Your task to perform on an android device: Open settings Image 0: 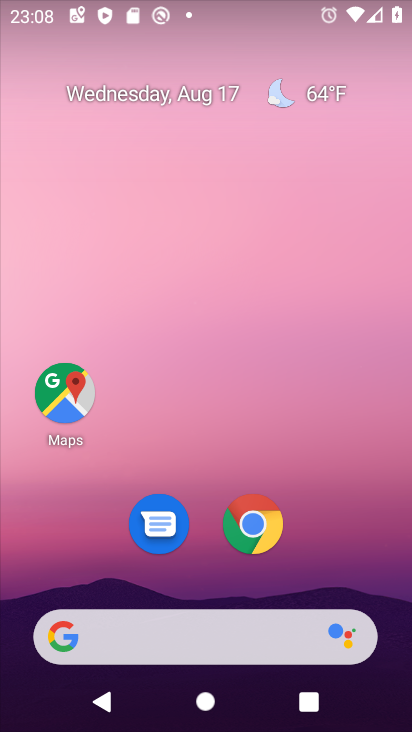
Step 0: drag from (237, 433) to (243, 0)
Your task to perform on an android device: Open settings Image 1: 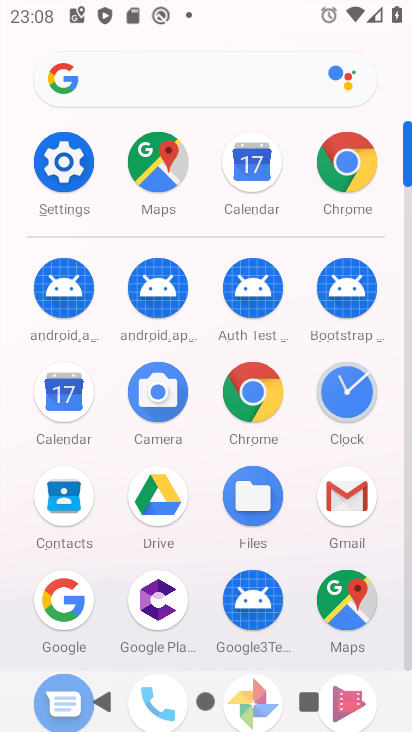
Step 1: click (65, 157)
Your task to perform on an android device: Open settings Image 2: 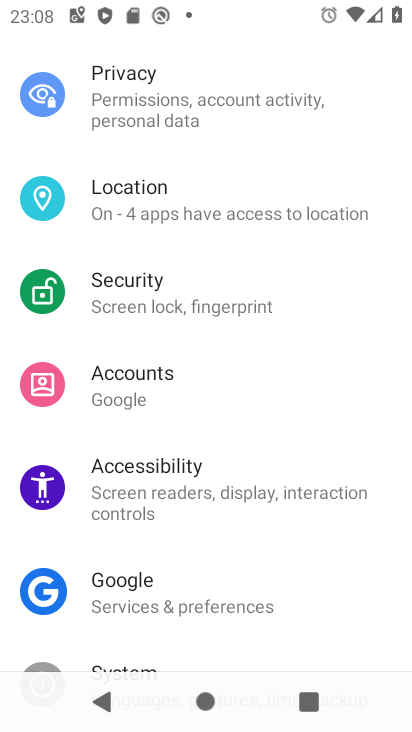
Step 2: task complete